Your task to perform on an android device: Open calendar and show me the fourth week of next month Image 0: 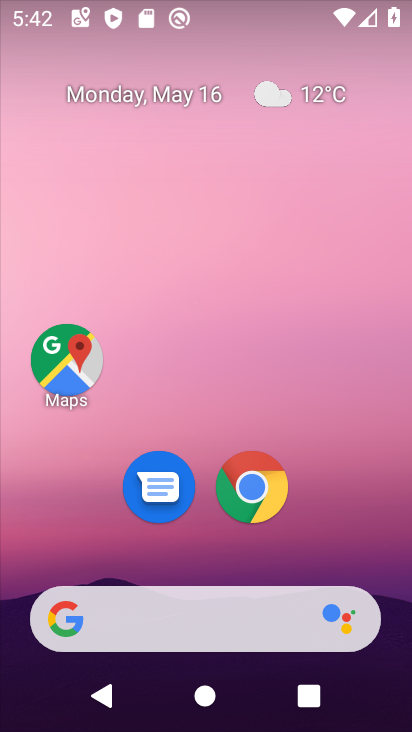
Step 0: drag from (339, 556) to (280, 138)
Your task to perform on an android device: Open calendar and show me the fourth week of next month Image 1: 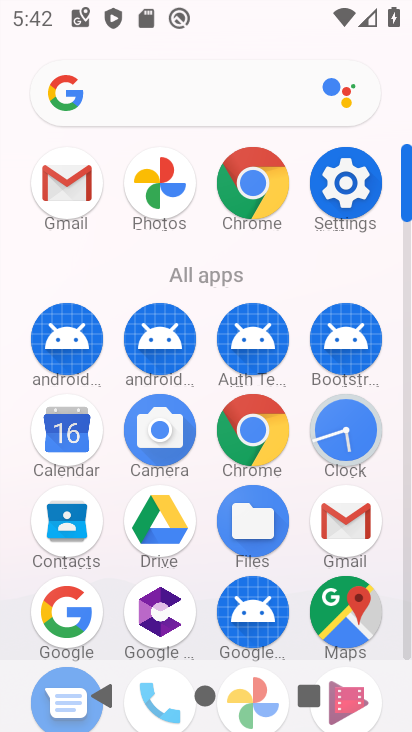
Step 1: drag from (298, 591) to (303, 214)
Your task to perform on an android device: Open calendar and show me the fourth week of next month Image 2: 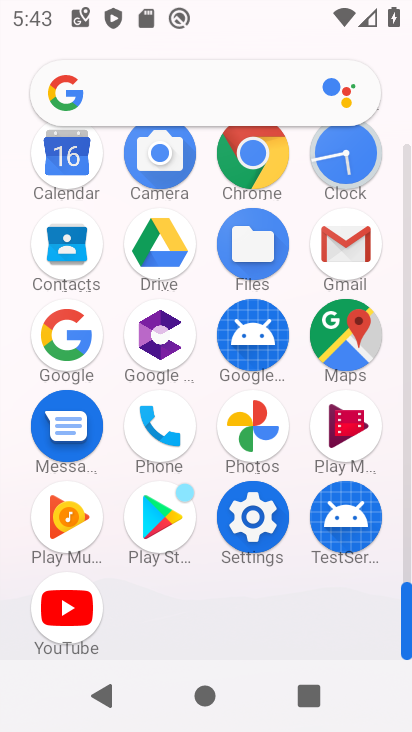
Step 2: click (83, 151)
Your task to perform on an android device: Open calendar and show me the fourth week of next month Image 3: 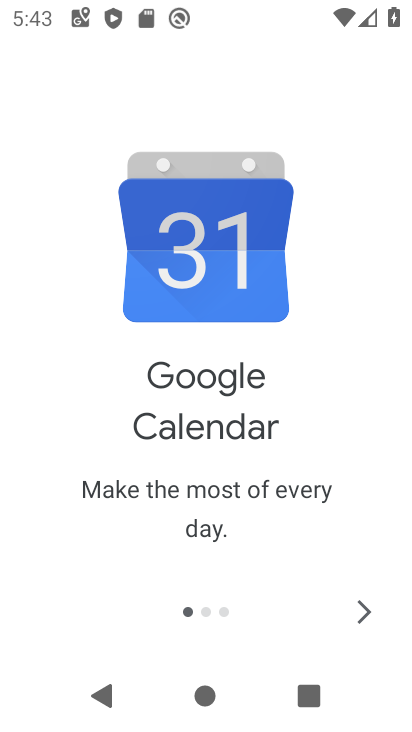
Step 3: click (370, 613)
Your task to perform on an android device: Open calendar and show me the fourth week of next month Image 4: 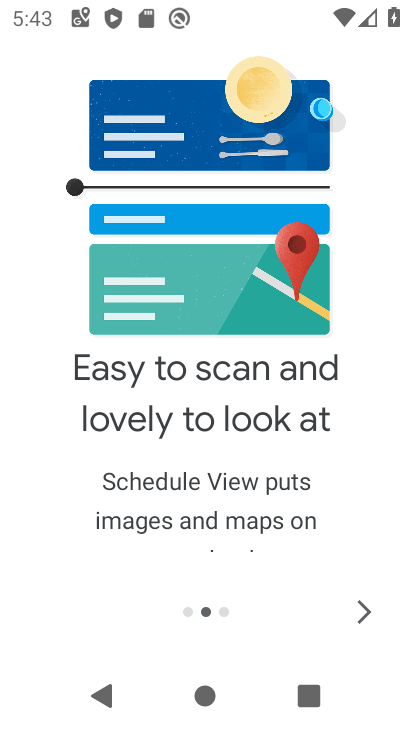
Step 4: click (370, 613)
Your task to perform on an android device: Open calendar and show me the fourth week of next month Image 5: 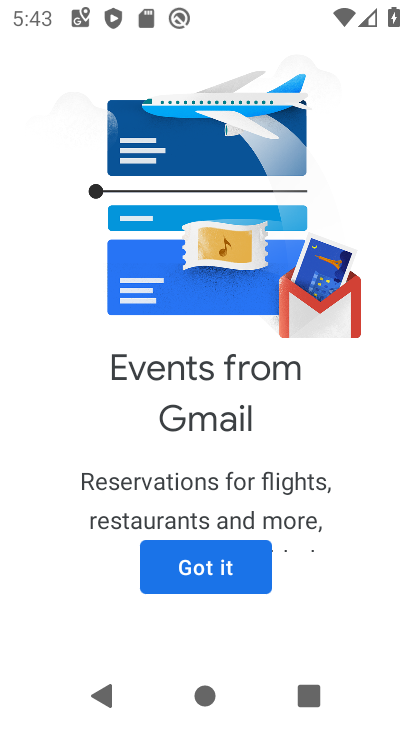
Step 5: click (266, 556)
Your task to perform on an android device: Open calendar and show me the fourth week of next month Image 6: 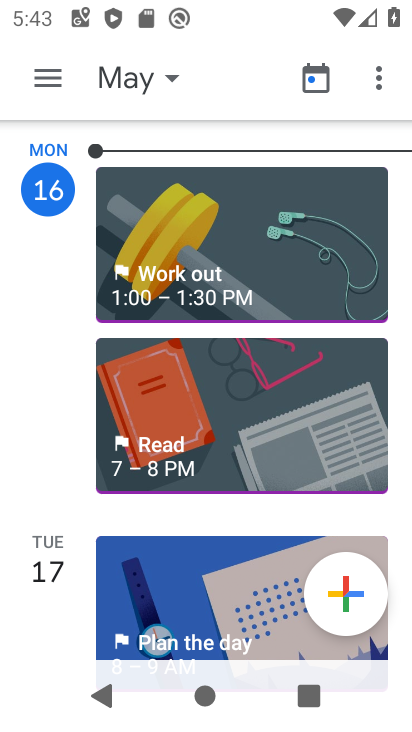
Step 6: click (111, 64)
Your task to perform on an android device: Open calendar and show me the fourth week of next month Image 7: 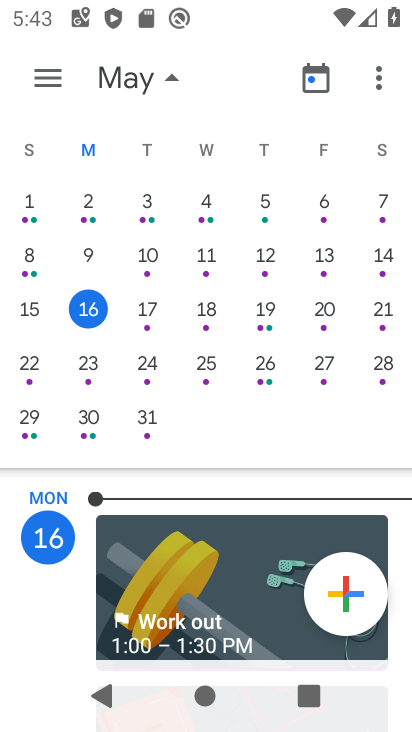
Step 7: drag from (396, 356) to (85, 358)
Your task to perform on an android device: Open calendar and show me the fourth week of next month Image 8: 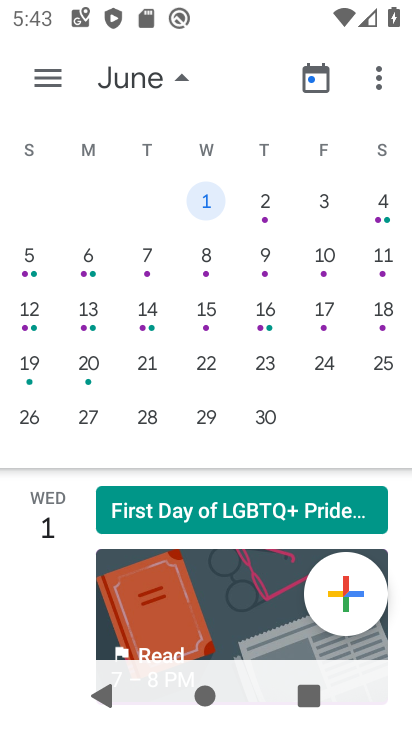
Step 8: click (28, 417)
Your task to perform on an android device: Open calendar and show me the fourth week of next month Image 9: 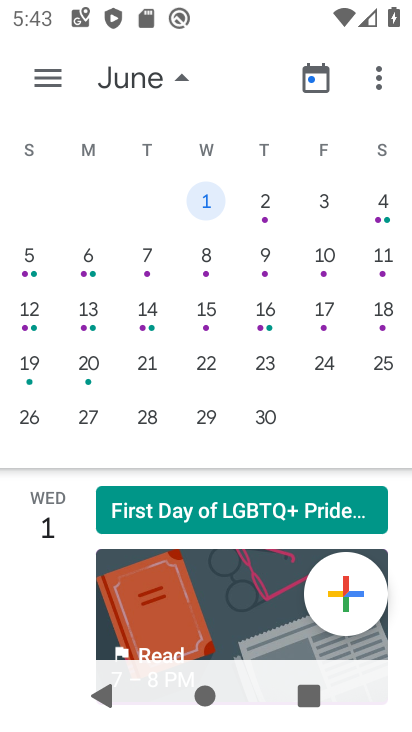
Step 9: click (32, 428)
Your task to perform on an android device: Open calendar and show me the fourth week of next month Image 10: 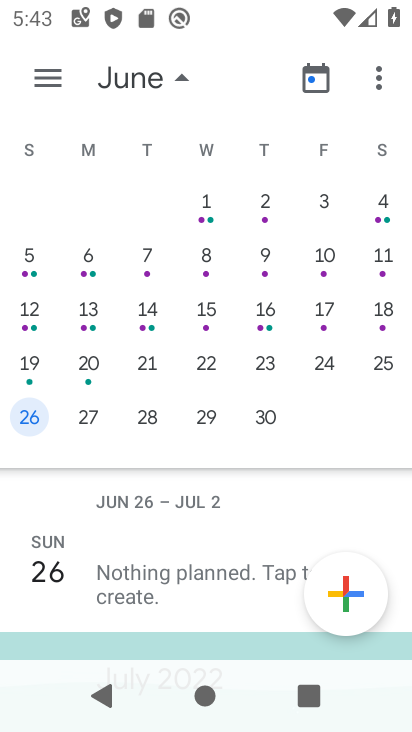
Step 10: task complete